Your task to perform on an android device: Go to display settings Image 0: 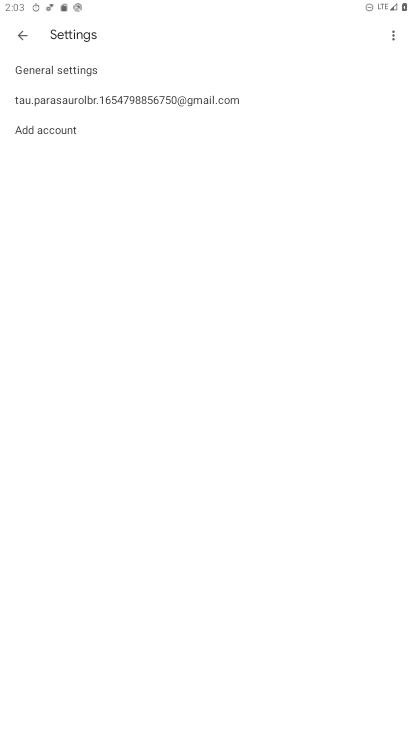
Step 0: press home button
Your task to perform on an android device: Go to display settings Image 1: 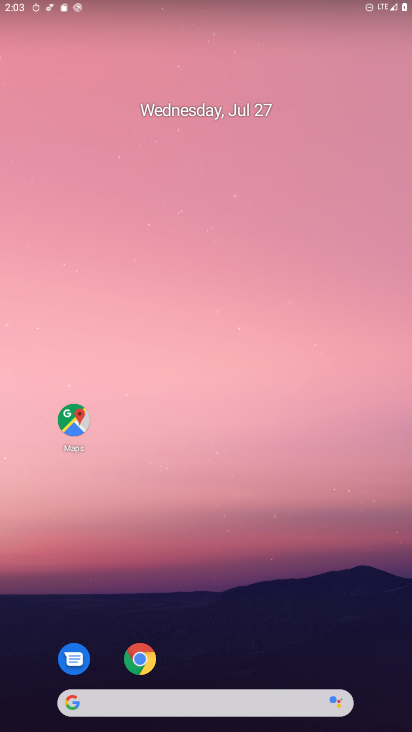
Step 1: drag from (283, 620) to (243, 93)
Your task to perform on an android device: Go to display settings Image 2: 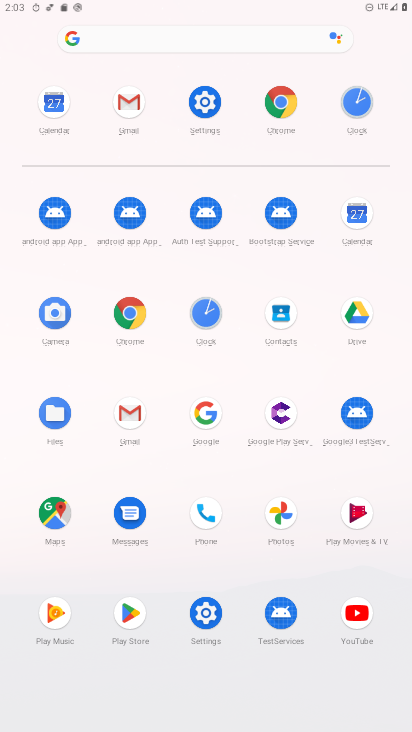
Step 2: click (212, 109)
Your task to perform on an android device: Go to display settings Image 3: 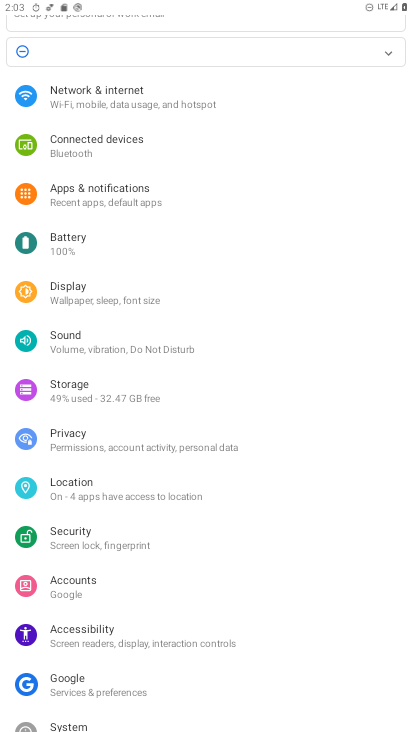
Step 3: click (83, 288)
Your task to perform on an android device: Go to display settings Image 4: 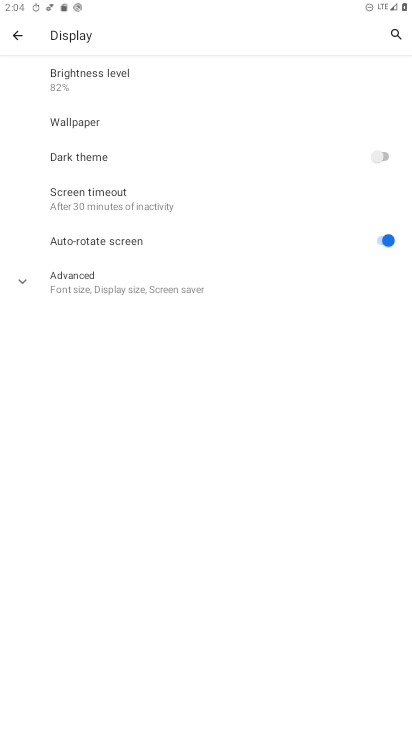
Step 4: task complete